Your task to perform on an android device: Open my contact list Image 0: 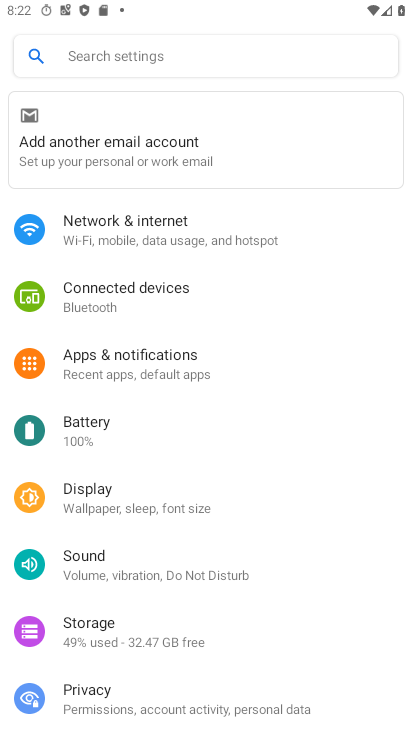
Step 0: press home button
Your task to perform on an android device: Open my contact list Image 1: 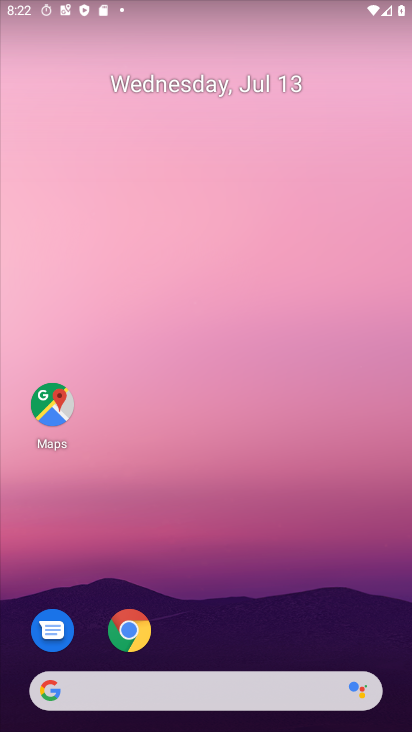
Step 1: drag from (327, 621) to (349, 119)
Your task to perform on an android device: Open my contact list Image 2: 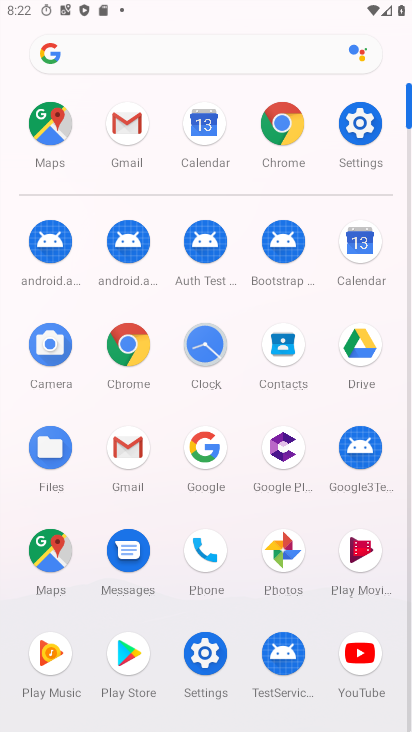
Step 2: click (278, 348)
Your task to perform on an android device: Open my contact list Image 3: 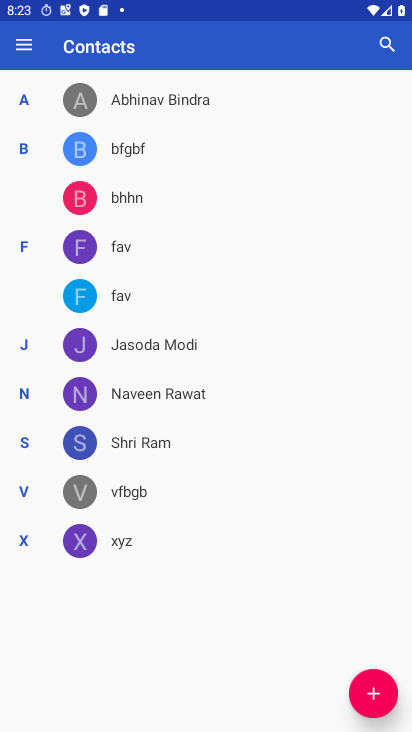
Step 3: task complete